Your task to perform on an android device: turn on location history Image 0: 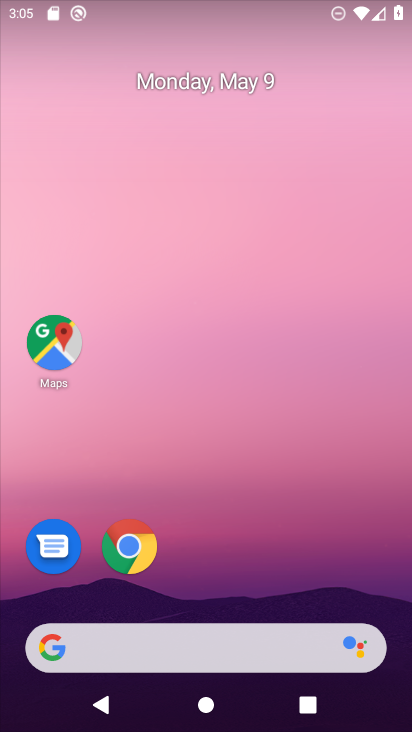
Step 0: drag from (216, 551) to (210, 49)
Your task to perform on an android device: turn on location history Image 1: 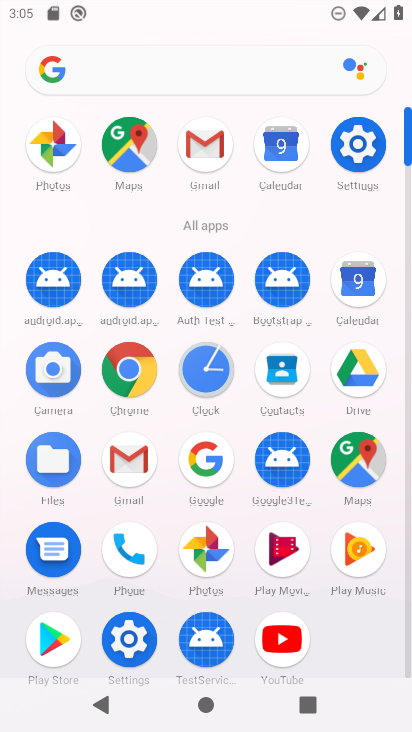
Step 1: click (351, 130)
Your task to perform on an android device: turn on location history Image 2: 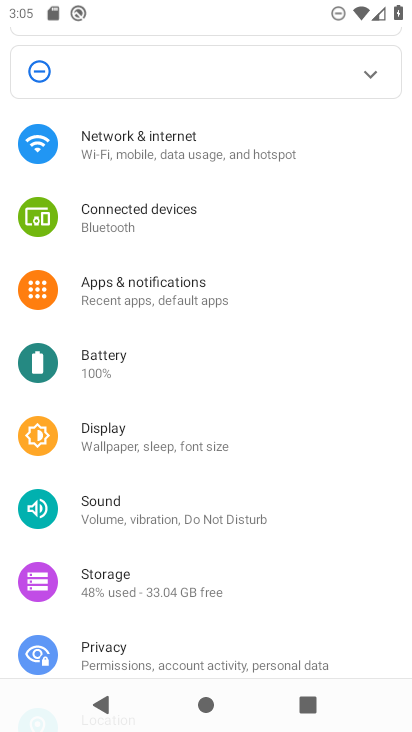
Step 2: drag from (141, 602) to (189, 217)
Your task to perform on an android device: turn on location history Image 3: 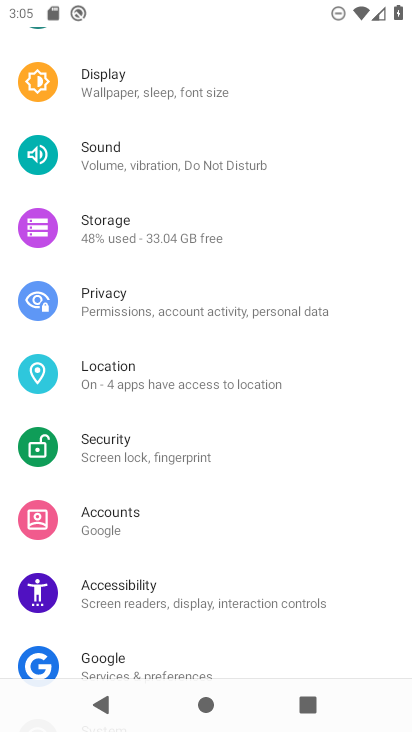
Step 3: click (151, 363)
Your task to perform on an android device: turn on location history Image 4: 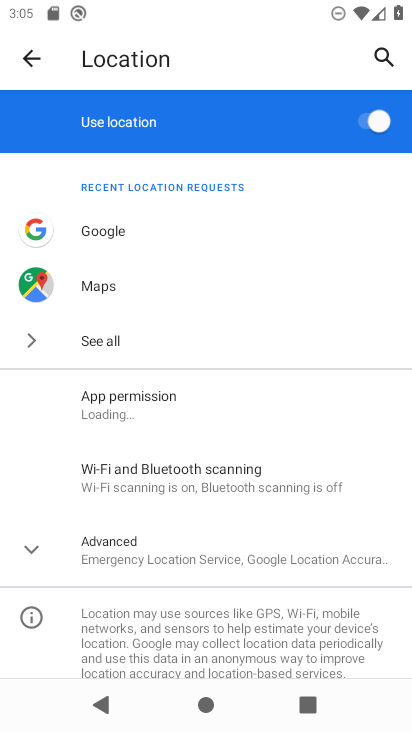
Step 4: click (115, 548)
Your task to perform on an android device: turn on location history Image 5: 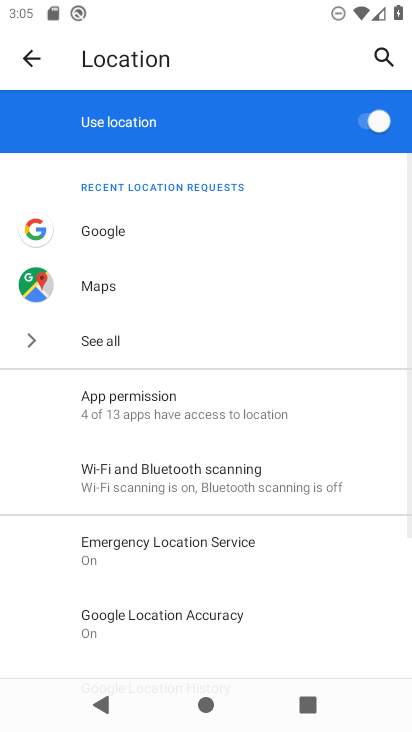
Step 5: drag from (141, 587) to (216, 183)
Your task to perform on an android device: turn on location history Image 6: 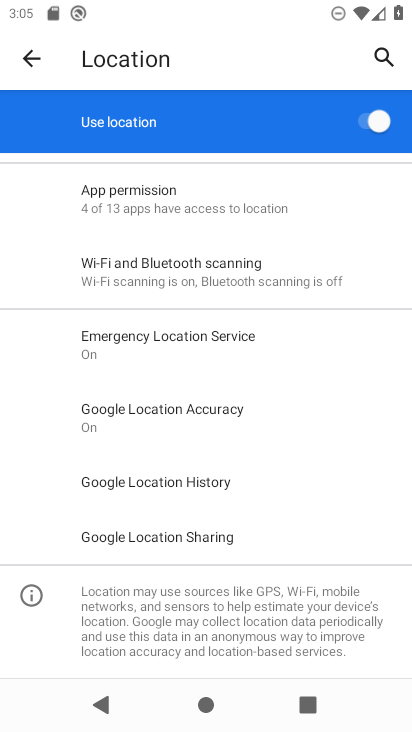
Step 6: click (182, 490)
Your task to perform on an android device: turn on location history Image 7: 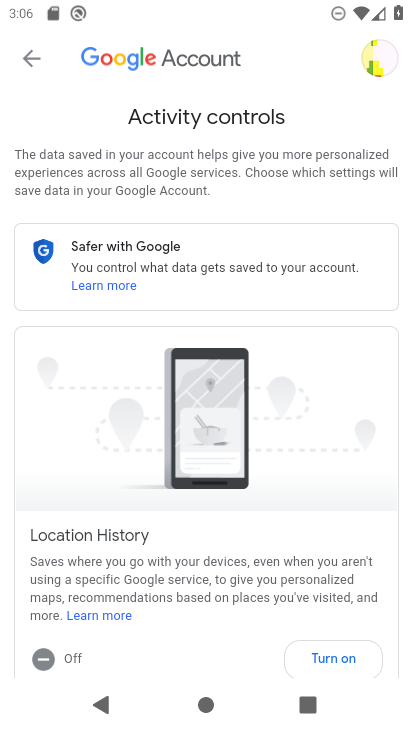
Step 7: click (321, 651)
Your task to perform on an android device: turn on location history Image 8: 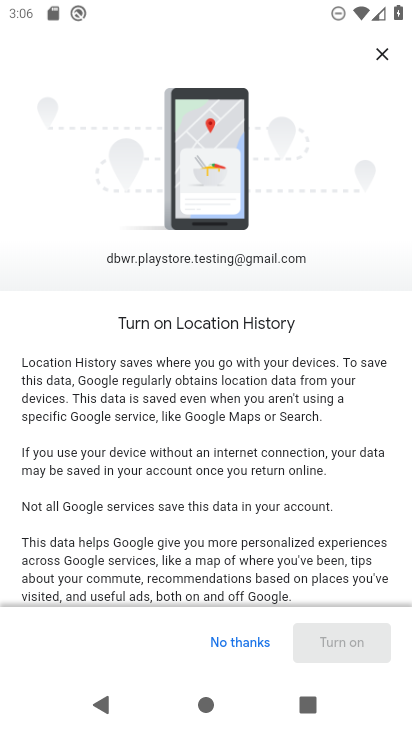
Step 8: drag from (268, 541) to (311, 220)
Your task to perform on an android device: turn on location history Image 9: 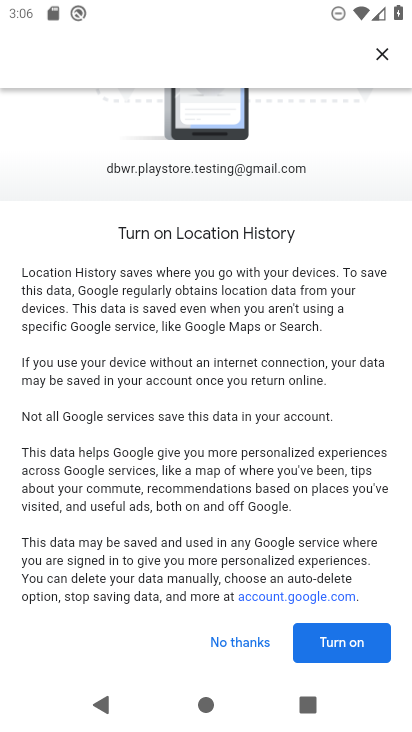
Step 9: click (333, 658)
Your task to perform on an android device: turn on location history Image 10: 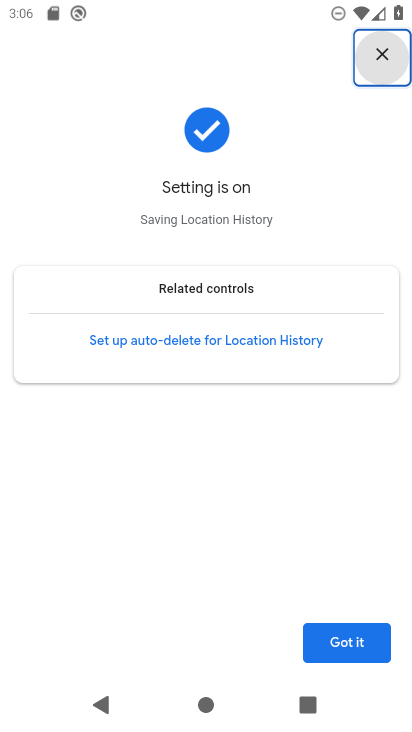
Step 10: task complete